Your task to perform on an android device: open a bookmark in the chrome app Image 0: 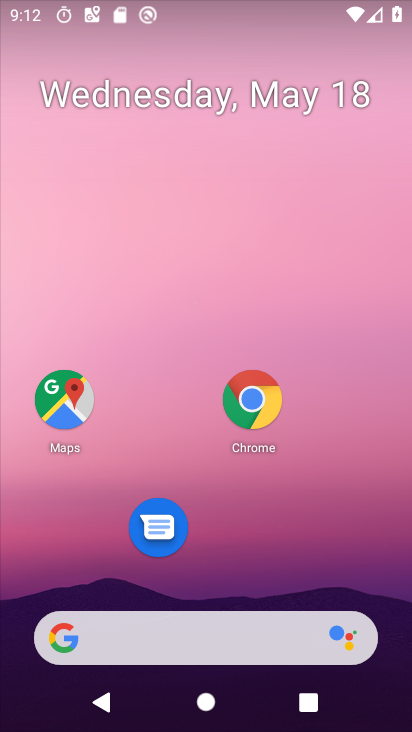
Step 0: click (222, 46)
Your task to perform on an android device: open a bookmark in the chrome app Image 1: 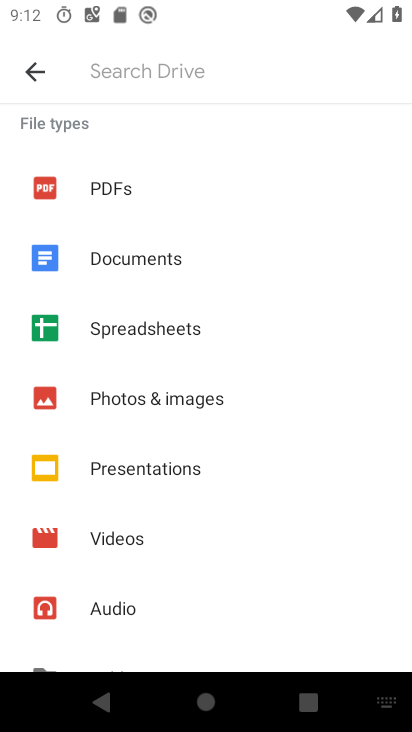
Step 1: drag from (204, 580) to (237, 129)
Your task to perform on an android device: open a bookmark in the chrome app Image 2: 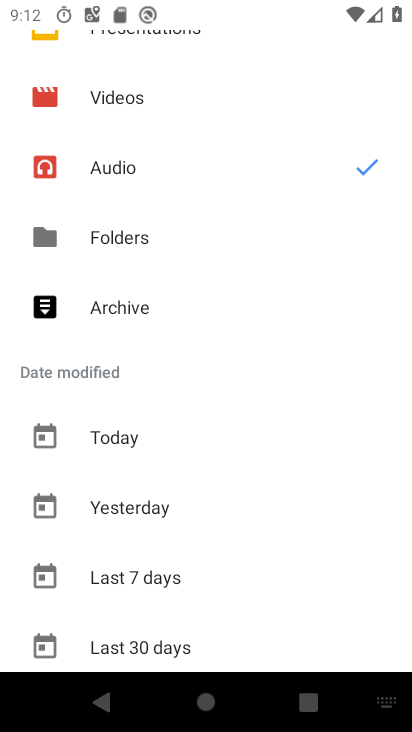
Step 2: press home button
Your task to perform on an android device: open a bookmark in the chrome app Image 3: 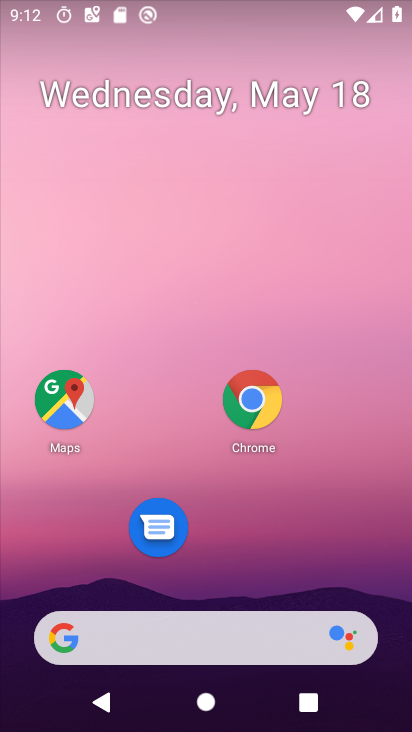
Step 3: drag from (215, 548) to (246, 37)
Your task to perform on an android device: open a bookmark in the chrome app Image 4: 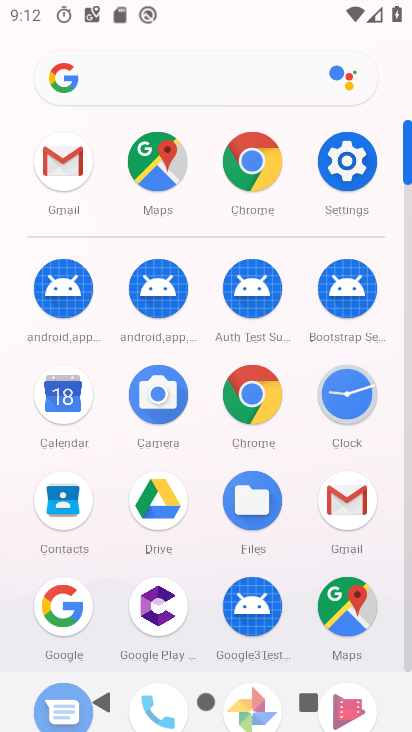
Step 4: click (47, 620)
Your task to perform on an android device: open a bookmark in the chrome app Image 5: 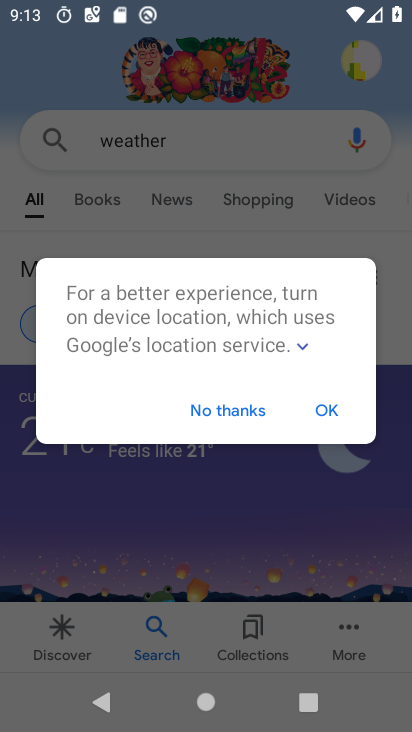
Step 5: press back button
Your task to perform on an android device: open a bookmark in the chrome app Image 6: 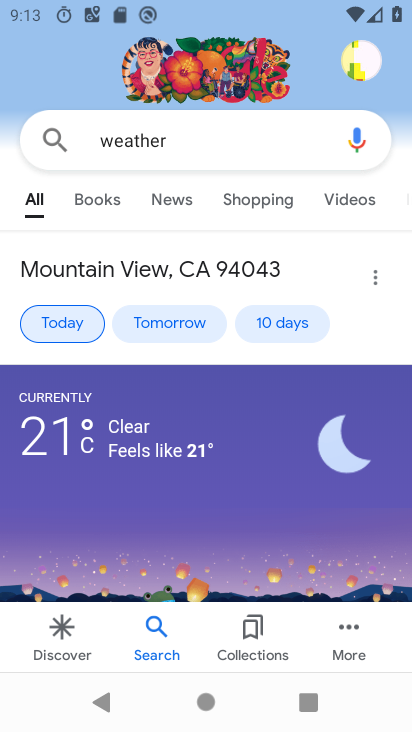
Step 6: press home button
Your task to perform on an android device: open a bookmark in the chrome app Image 7: 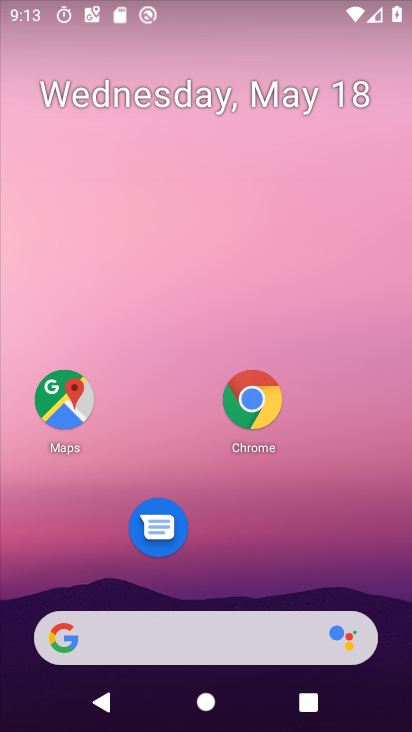
Step 7: click (253, 405)
Your task to perform on an android device: open a bookmark in the chrome app Image 8: 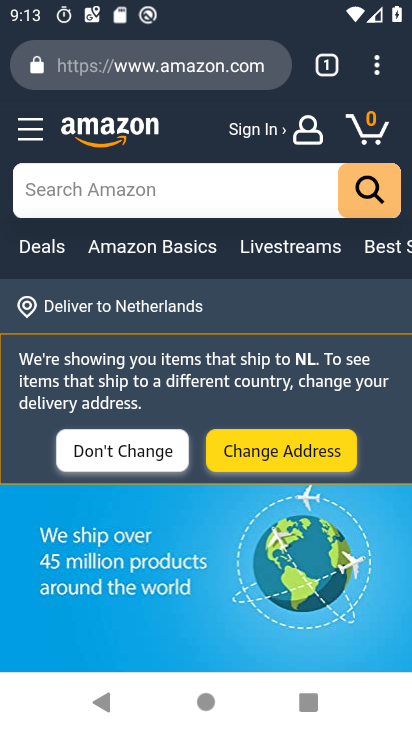
Step 8: click (374, 66)
Your task to perform on an android device: open a bookmark in the chrome app Image 9: 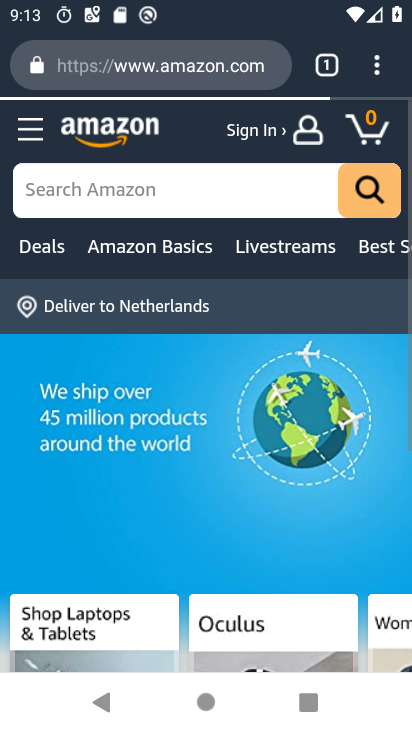
Step 9: click (383, 66)
Your task to perform on an android device: open a bookmark in the chrome app Image 10: 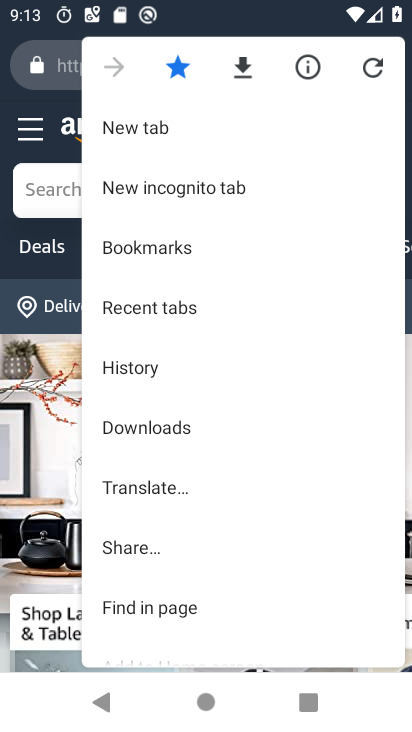
Step 10: click (185, 256)
Your task to perform on an android device: open a bookmark in the chrome app Image 11: 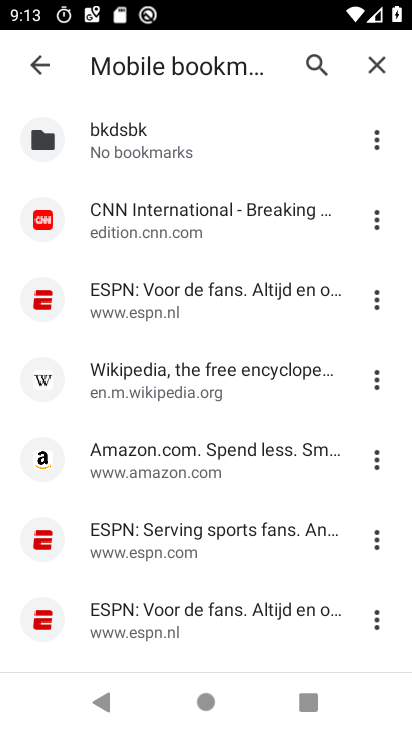
Step 11: click (189, 212)
Your task to perform on an android device: open a bookmark in the chrome app Image 12: 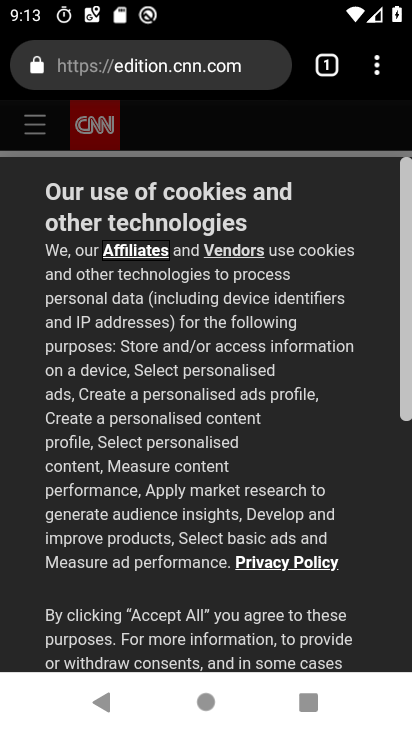
Step 12: task complete